Your task to perform on an android device: Go to Yahoo.com Image 0: 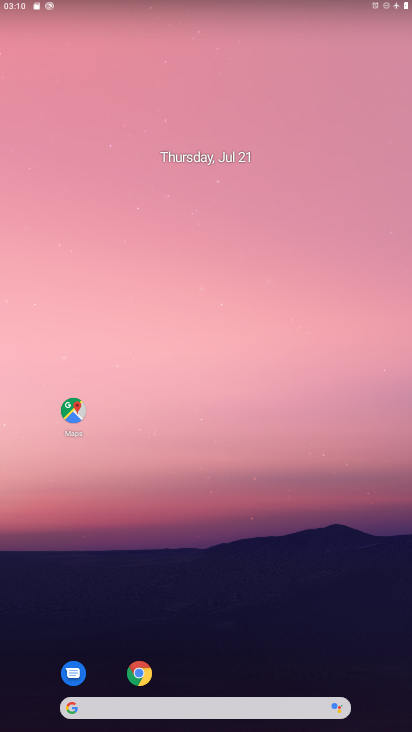
Step 0: drag from (203, 636) to (214, 62)
Your task to perform on an android device: Go to Yahoo.com Image 1: 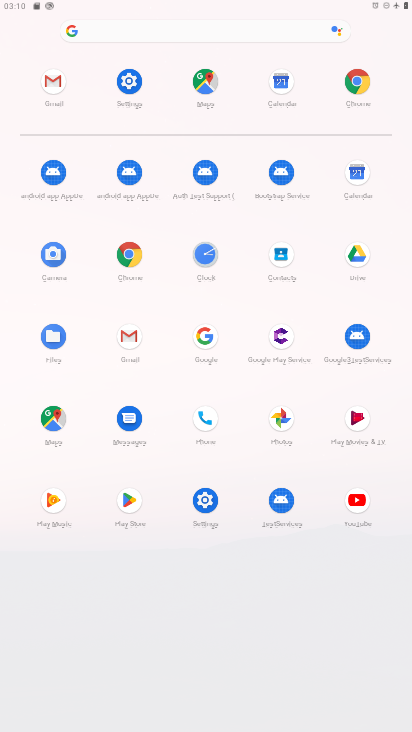
Step 1: click (137, 252)
Your task to perform on an android device: Go to Yahoo.com Image 2: 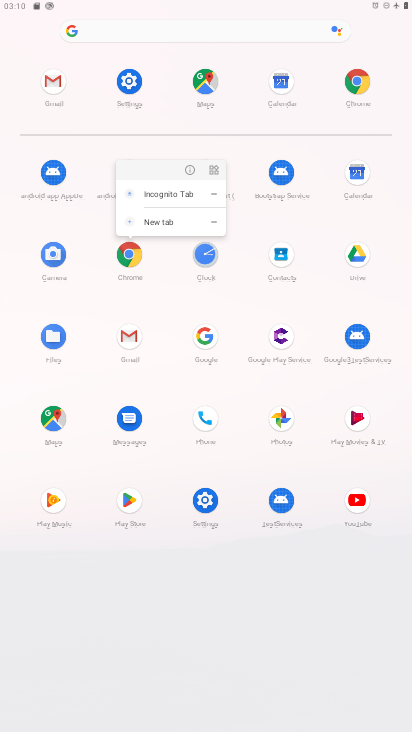
Step 2: click (125, 253)
Your task to perform on an android device: Go to Yahoo.com Image 3: 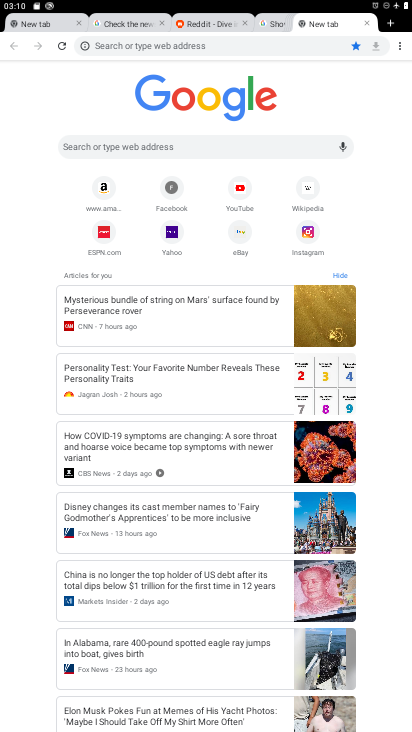
Step 3: click (177, 233)
Your task to perform on an android device: Go to Yahoo.com Image 4: 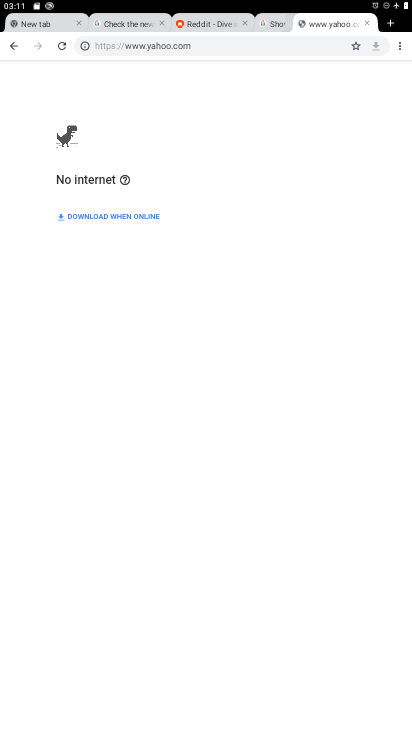
Step 4: task complete